Your task to perform on an android device: turn off location history Image 0: 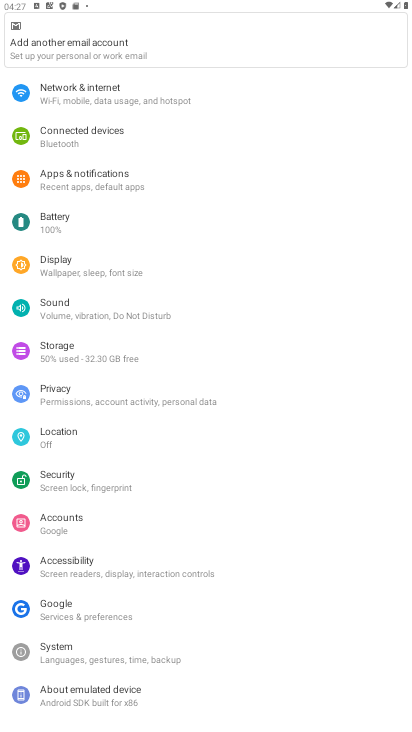
Step 0: press home button
Your task to perform on an android device: turn off location history Image 1: 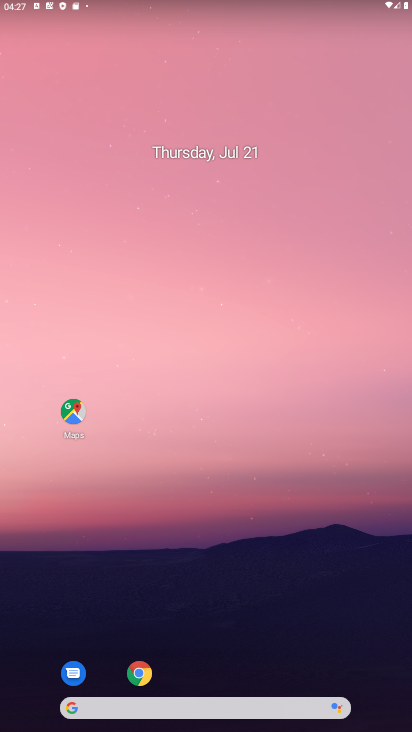
Step 1: click (72, 411)
Your task to perform on an android device: turn off location history Image 2: 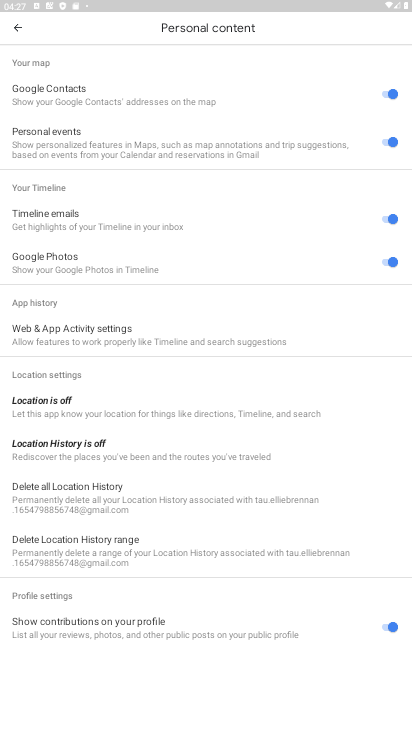
Step 2: task complete